Your task to perform on an android device: Open Google Chrome Image 0: 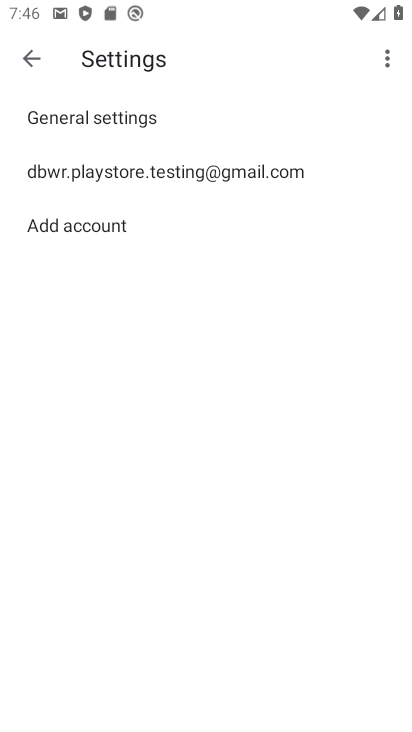
Step 0: press home button
Your task to perform on an android device: Open Google Chrome Image 1: 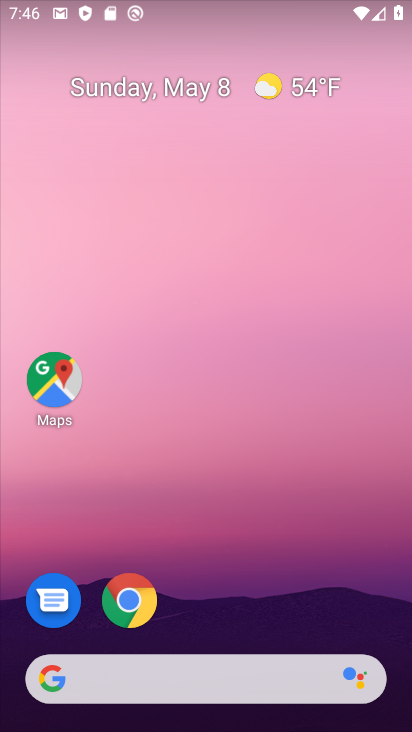
Step 1: click (140, 619)
Your task to perform on an android device: Open Google Chrome Image 2: 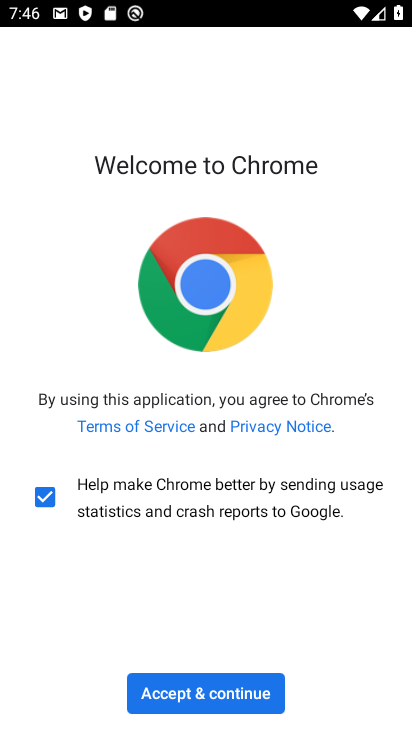
Step 2: click (245, 704)
Your task to perform on an android device: Open Google Chrome Image 3: 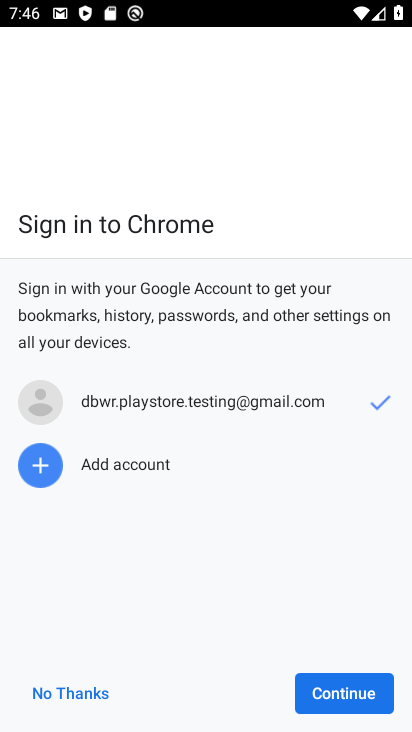
Step 3: click (378, 693)
Your task to perform on an android device: Open Google Chrome Image 4: 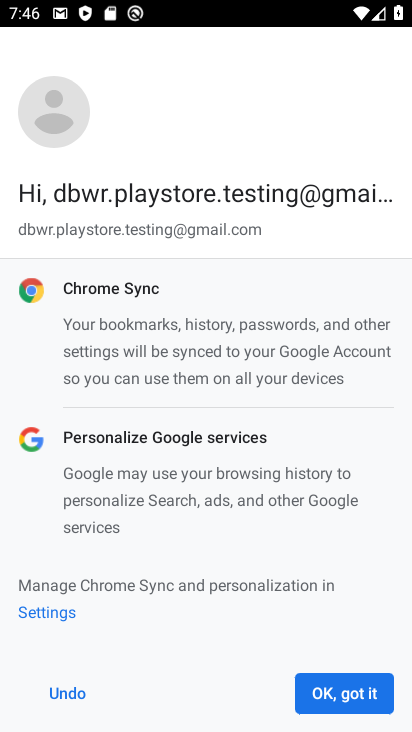
Step 4: click (378, 693)
Your task to perform on an android device: Open Google Chrome Image 5: 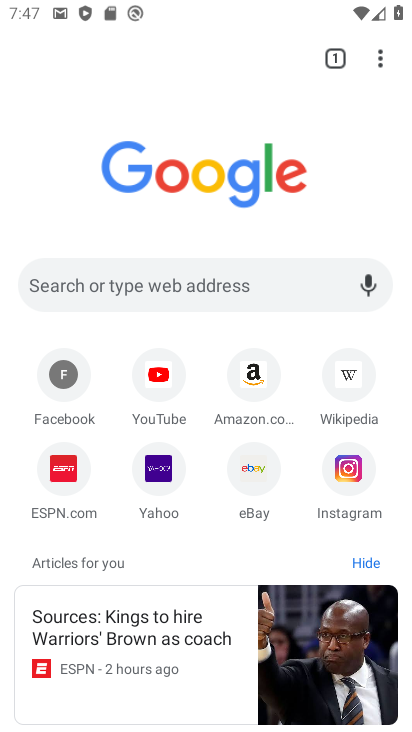
Step 5: task complete